Your task to perform on an android device: Go to sound settings Image 0: 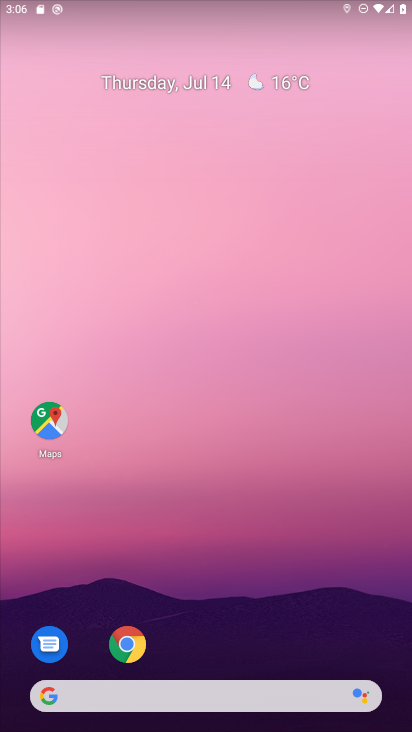
Step 0: drag from (239, 660) to (282, 72)
Your task to perform on an android device: Go to sound settings Image 1: 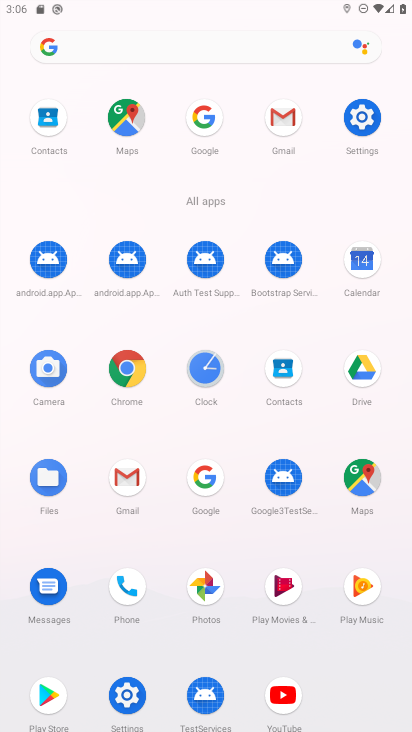
Step 1: click (355, 113)
Your task to perform on an android device: Go to sound settings Image 2: 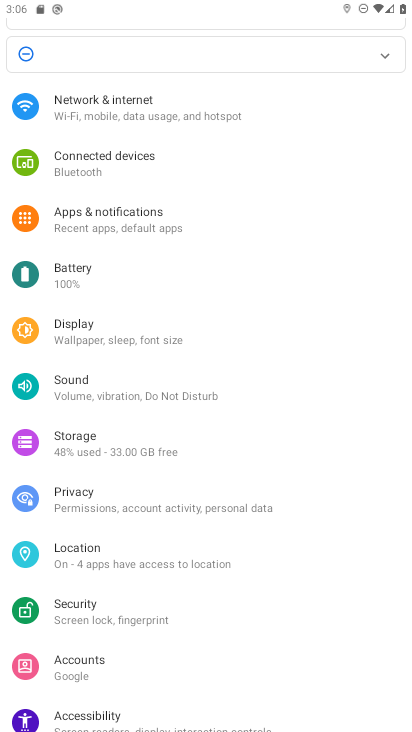
Step 2: click (121, 396)
Your task to perform on an android device: Go to sound settings Image 3: 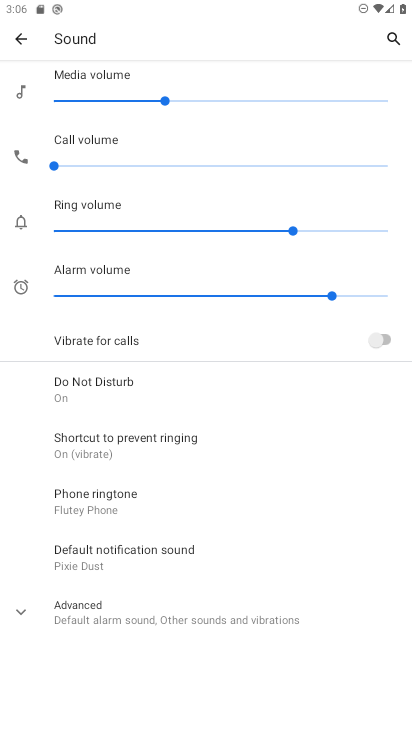
Step 3: task complete